Your task to perform on an android device: Go to Amazon Image 0: 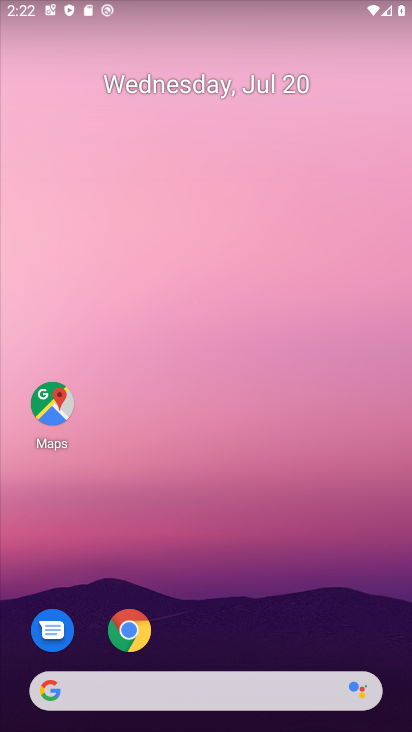
Step 0: drag from (292, 602) to (314, 132)
Your task to perform on an android device: Go to Amazon Image 1: 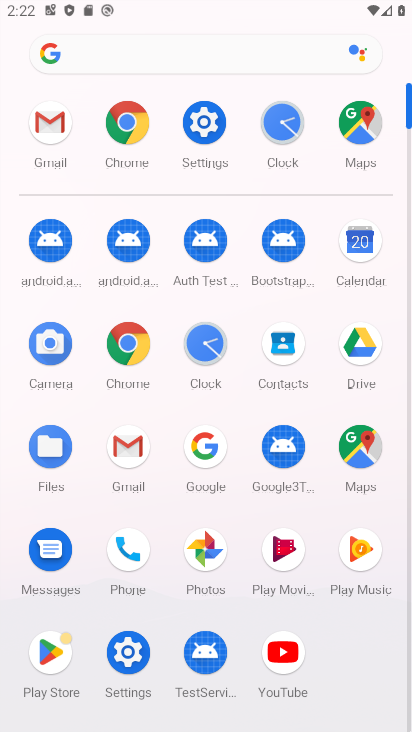
Step 1: click (141, 348)
Your task to perform on an android device: Go to Amazon Image 2: 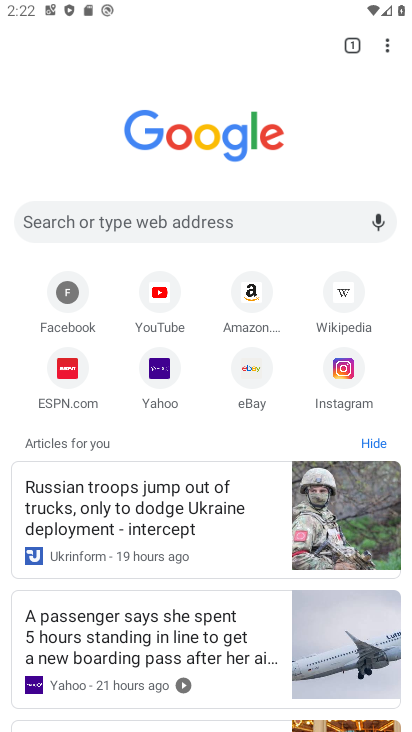
Step 2: click (296, 219)
Your task to perform on an android device: Go to Amazon Image 3: 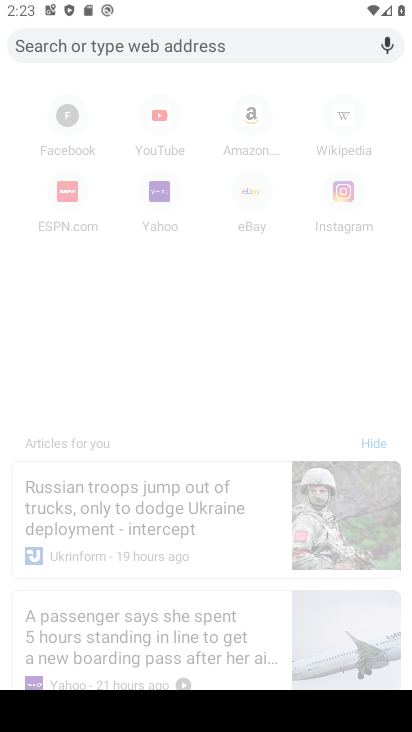
Step 3: type "amazon"
Your task to perform on an android device: Go to Amazon Image 4: 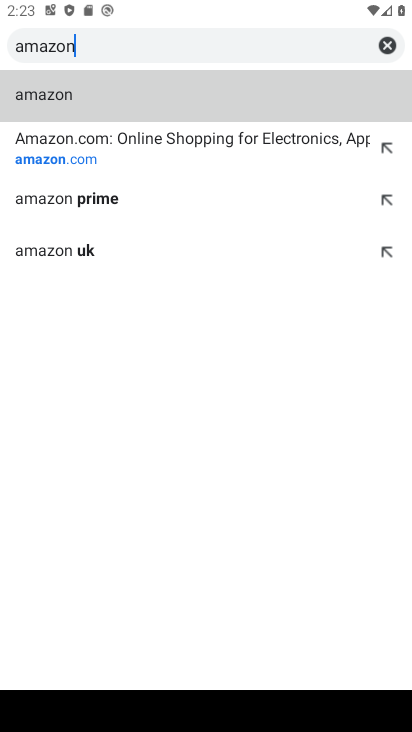
Step 4: click (229, 102)
Your task to perform on an android device: Go to Amazon Image 5: 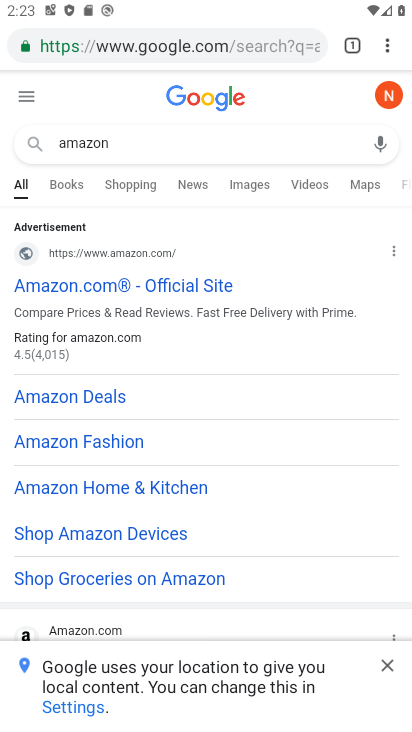
Step 5: task complete